Your task to perform on an android device: Open privacy settings Image 0: 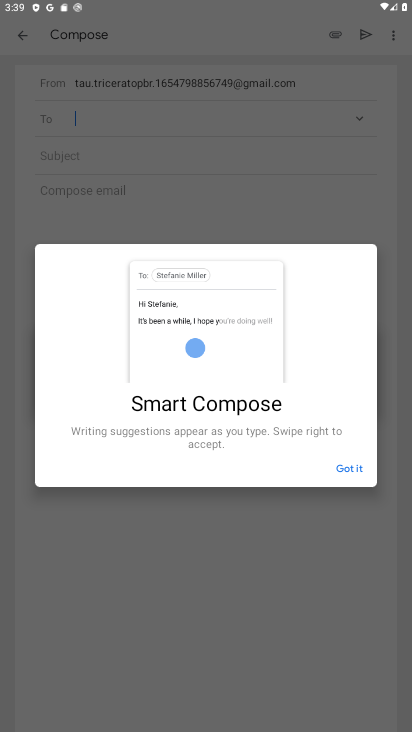
Step 0: press home button
Your task to perform on an android device: Open privacy settings Image 1: 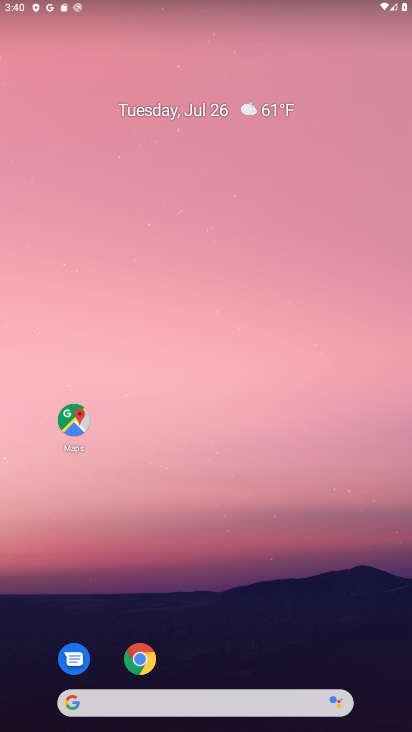
Step 1: drag from (301, 658) to (283, 75)
Your task to perform on an android device: Open privacy settings Image 2: 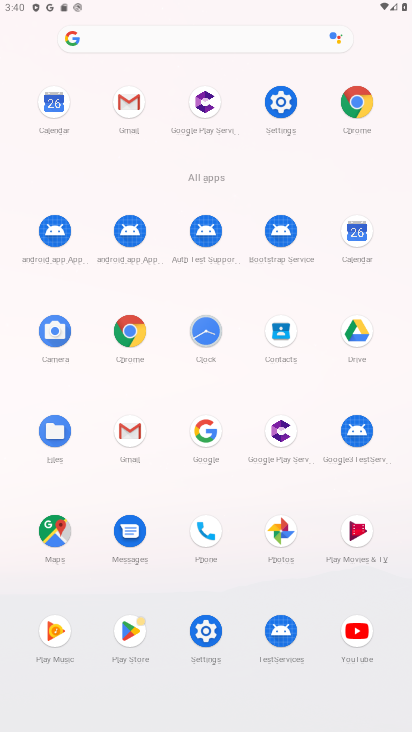
Step 2: click (290, 108)
Your task to perform on an android device: Open privacy settings Image 3: 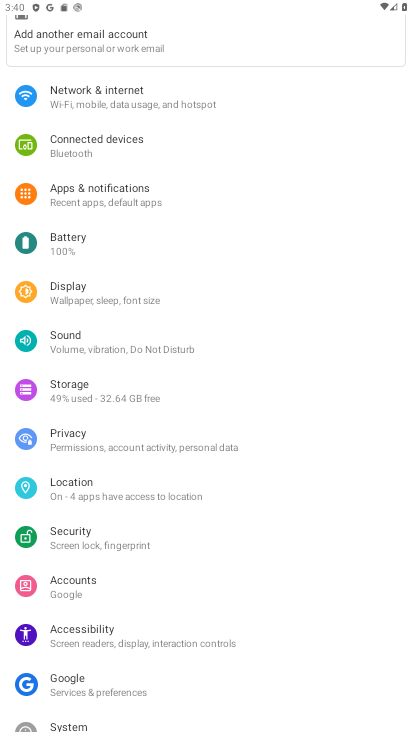
Step 3: drag from (128, 620) to (147, 272)
Your task to perform on an android device: Open privacy settings Image 4: 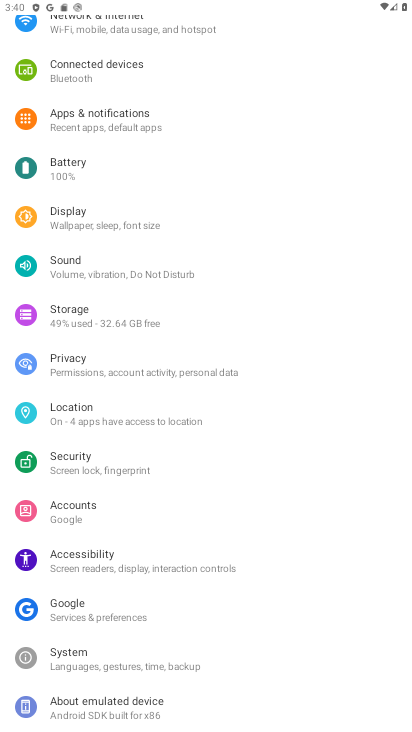
Step 4: drag from (121, 336) to (158, 646)
Your task to perform on an android device: Open privacy settings Image 5: 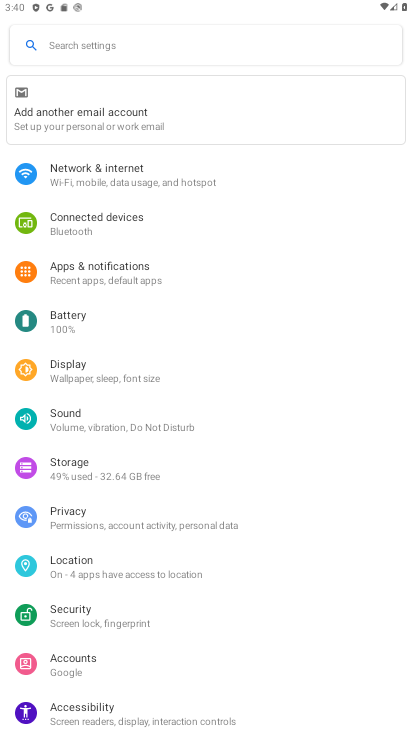
Step 5: click (99, 521)
Your task to perform on an android device: Open privacy settings Image 6: 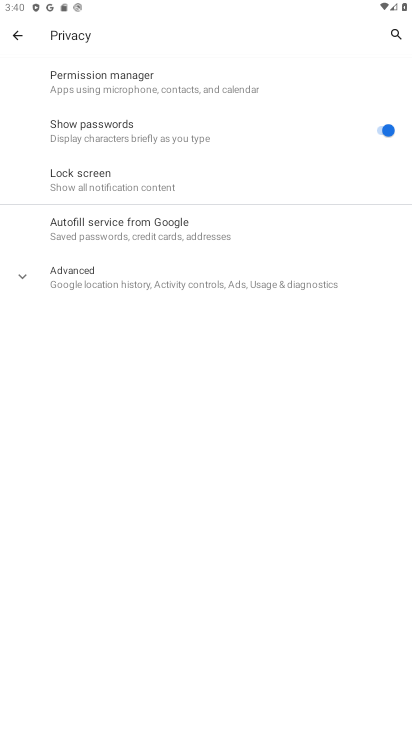
Step 6: task complete